Your task to perform on an android device: stop showing notifications on the lock screen Image 0: 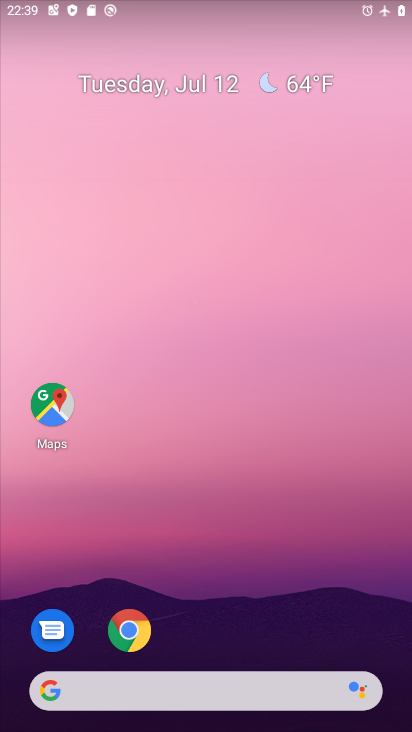
Step 0: drag from (214, 653) to (214, 105)
Your task to perform on an android device: stop showing notifications on the lock screen Image 1: 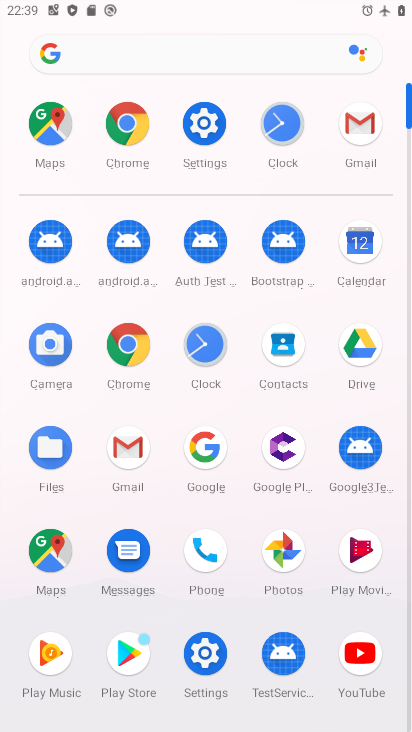
Step 1: click (199, 662)
Your task to perform on an android device: stop showing notifications on the lock screen Image 2: 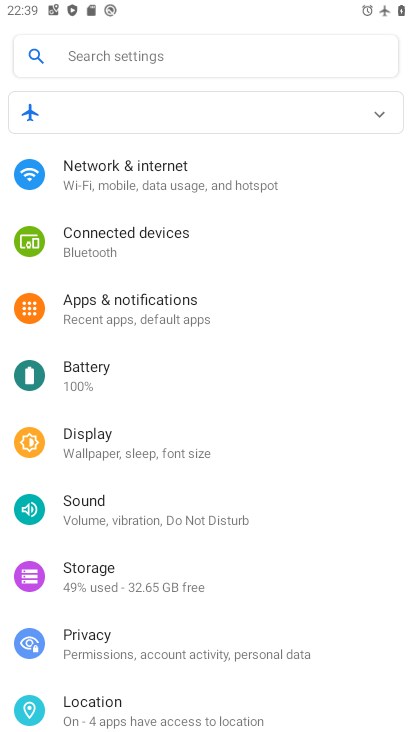
Step 2: drag from (170, 573) to (171, 217)
Your task to perform on an android device: stop showing notifications on the lock screen Image 3: 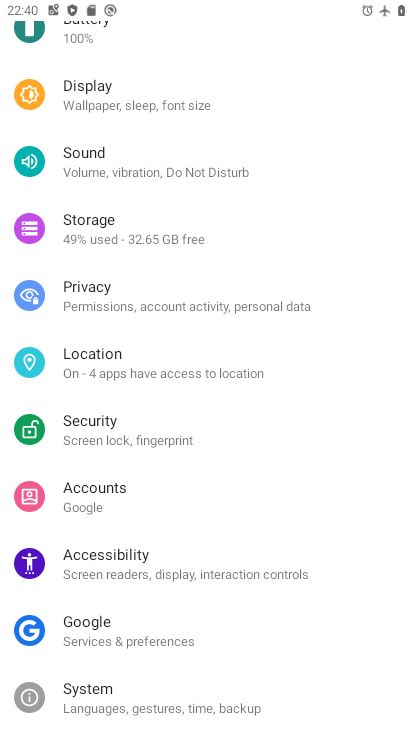
Step 3: drag from (109, 173) to (117, 512)
Your task to perform on an android device: stop showing notifications on the lock screen Image 4: 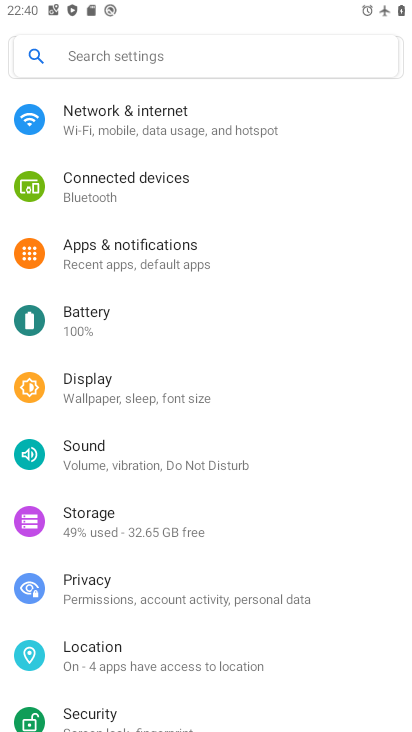
Step 4: click (123, 255)
Your task to perform on an android device: stop showing notifications on the lock screen Image 5: 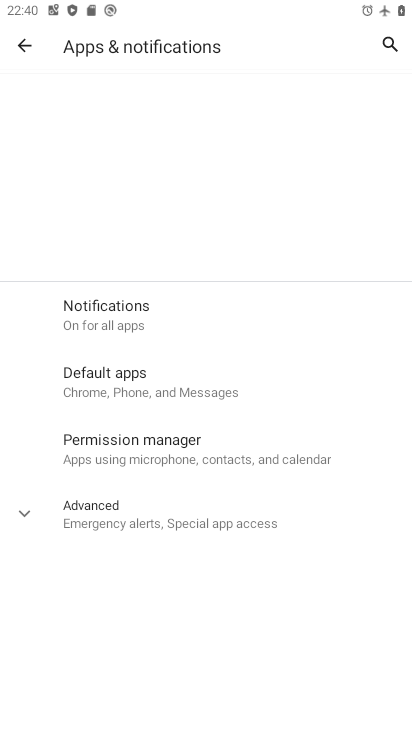
Step 5: click (106, 325)
Your task to perform on an android device: stop showing notifications on the lock screen Image 6: 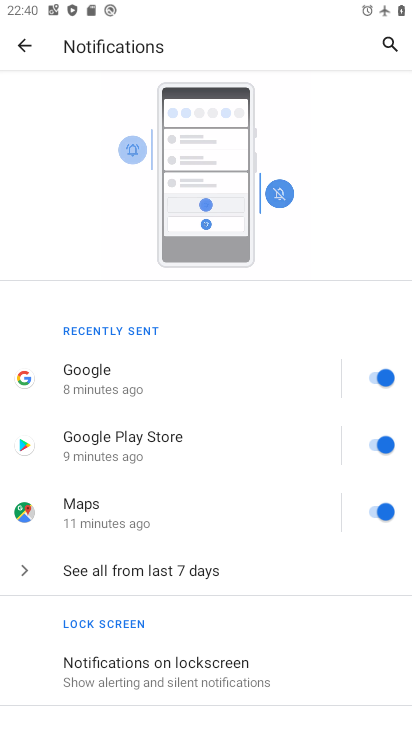
Step 6: drag from (113, 614) to (91, 142)
Your task to perform on an android device: stop showing notifications on the lock screen Image 7: 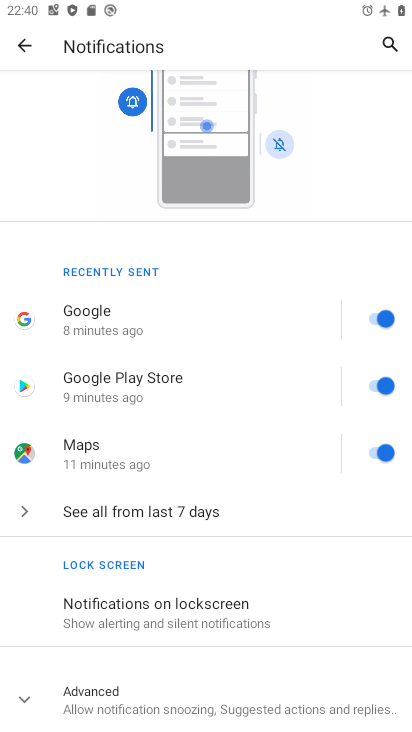
Step 7: drag from (132, 683) to (154, 330)
Your task to perform on an android device: stop showing notifications on the lock screen Image 8: 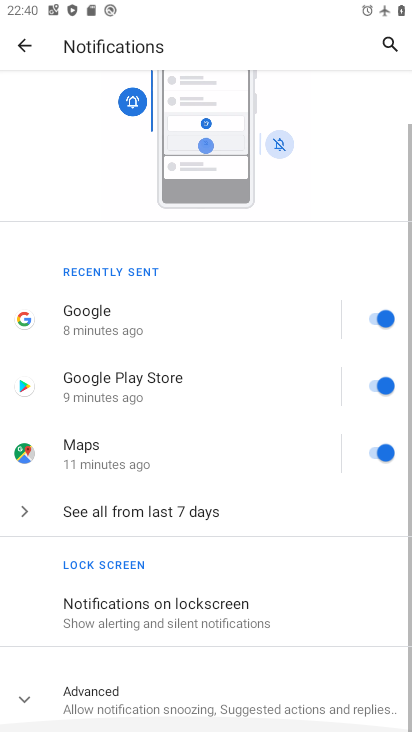
Step 8: click (206, 596)
Your task to perform on an android device: stop showing notifications on the lock screen Image 9: 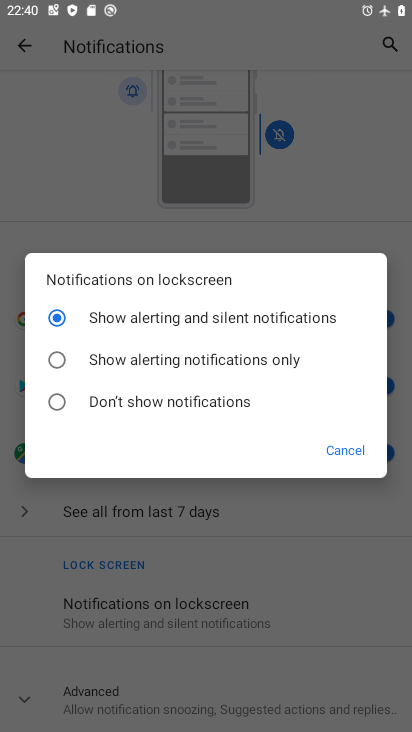
Step 9: click (126, 397)
Your task to perform on an android device: stop showing notifications on the lock screen Image 10: 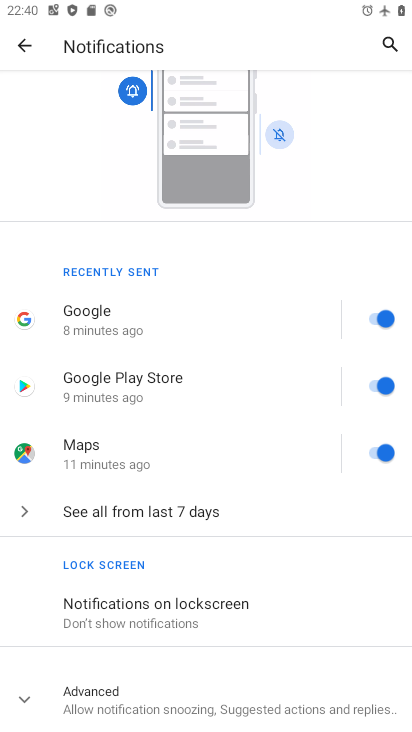
Step 10: task complete